Your task to perform on an android device: Go to privacy settings Image 0: 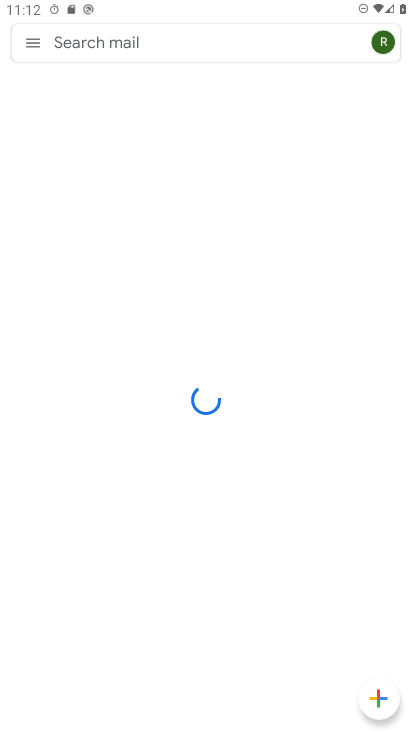
Step 0: press home button
Your task to perform on an android device: Go to privacy settings Image 1: 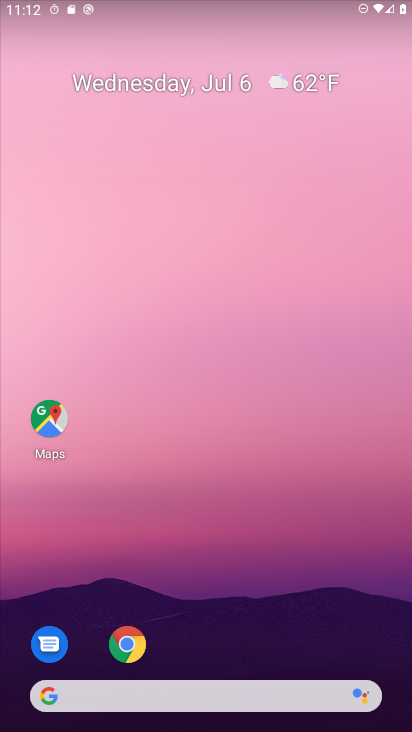
Step 1: drag from (327, 575) to (311, 56)
Your task to perform on an android device: Go to privacy settings Image 2: 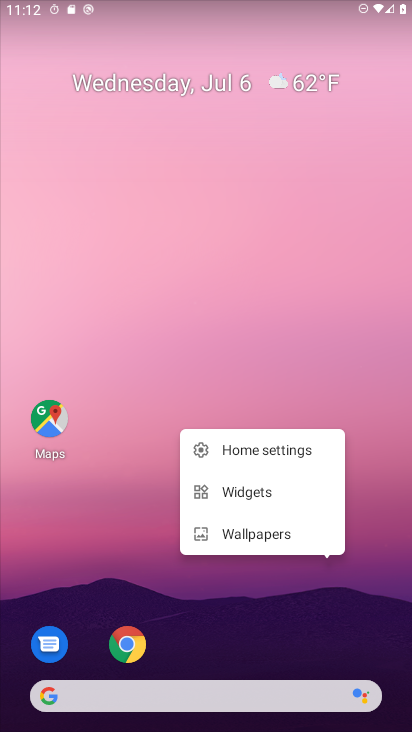
Step 2: drag from (321, 627) to (328, 90)
Your task to perform on an android device: Go to privacy settings Image 3: 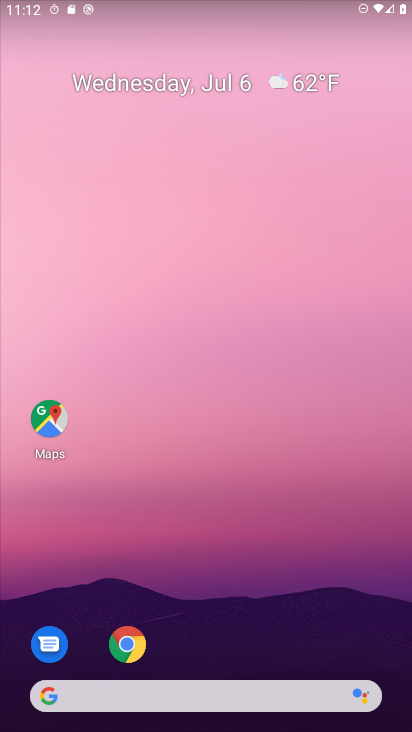
Step 3: drag from (243, 610) to (316, 81)
Your task to perform on an android device: Go to privacy settings Image 4: 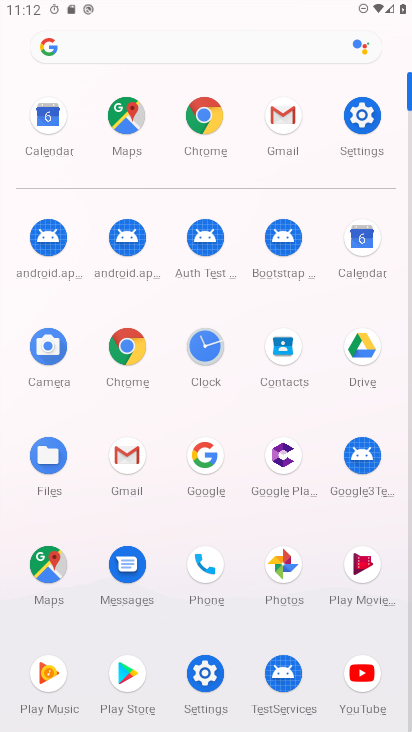
Step 4: click (347, 124)
Your task to perform on an android device: Go to privacy settings Image 5: 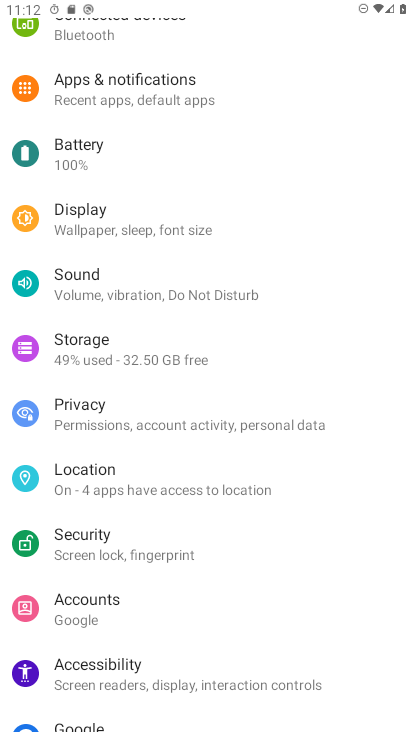
Step 5: click (92, 420)
Your task to perform on an android device: Go to privacy settings Image 6: 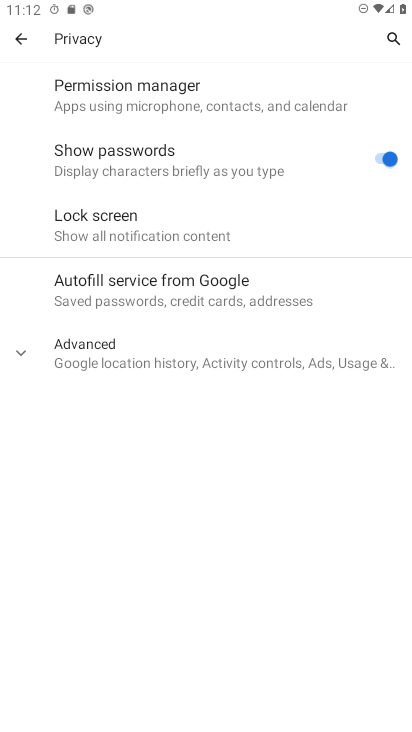
Step 6: task complete